Your task to perform on an android device: Go to CNN.com Image 0: 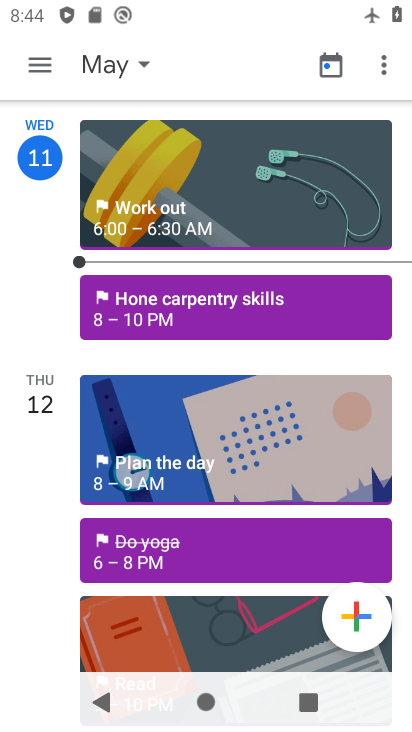
Step 0: press home button
Your task to perform on an android device: Go to CNN.com Image 1: 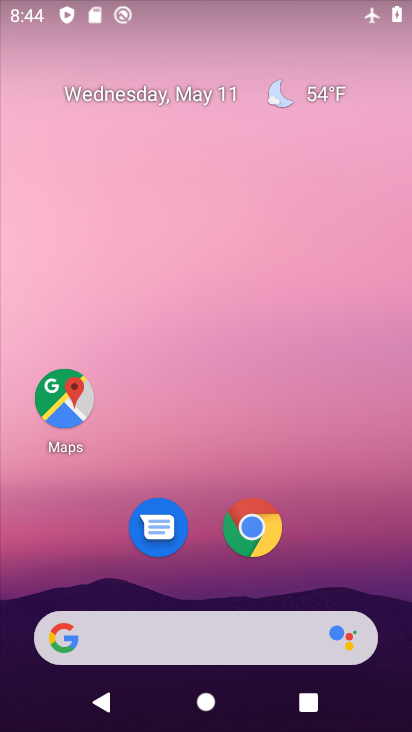
Step 1: click (248, 529)
Your task to perform on an android device: Go to CNN.com Image 2: 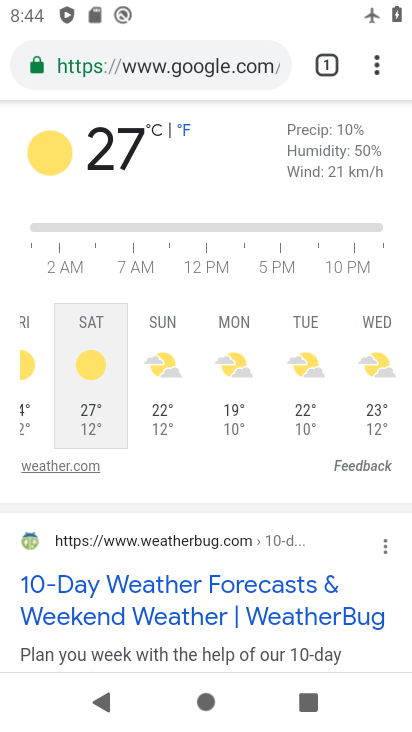
Step 2: click (183, 65)
Your task to perform on an android device: Go to CNN.com Image 3: 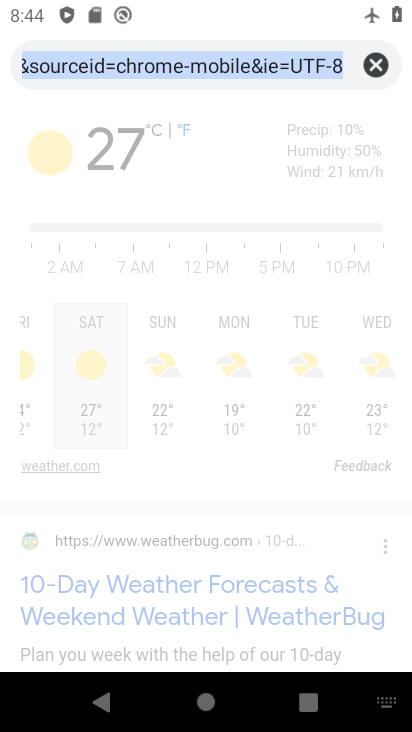
Step 3: type "CNN.com"
Your task to perform on an android device: Go to CNN.com Image 4: 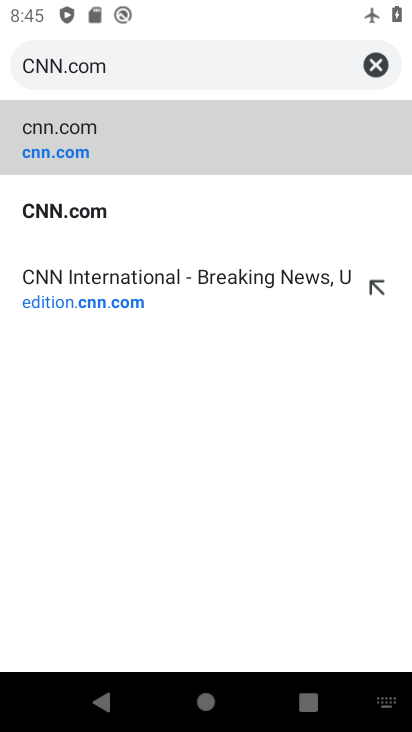
Step 4: click (88, 127)
Your task to perform on an android device: Go to CNN.com Image 5: 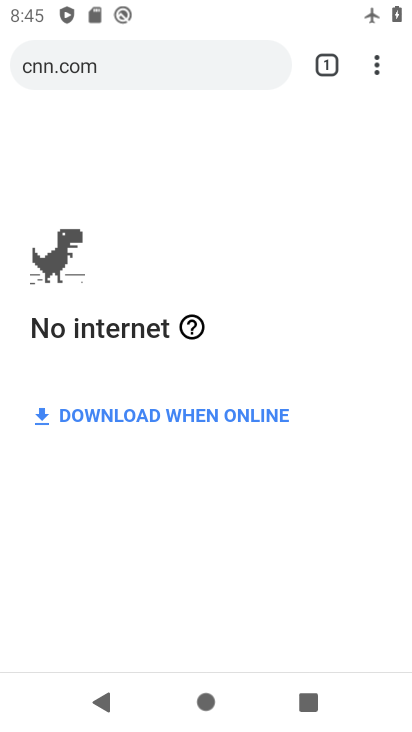
Step 5: task complete